Your task to perform on an android device: change the clock display to show seconds Image 0: 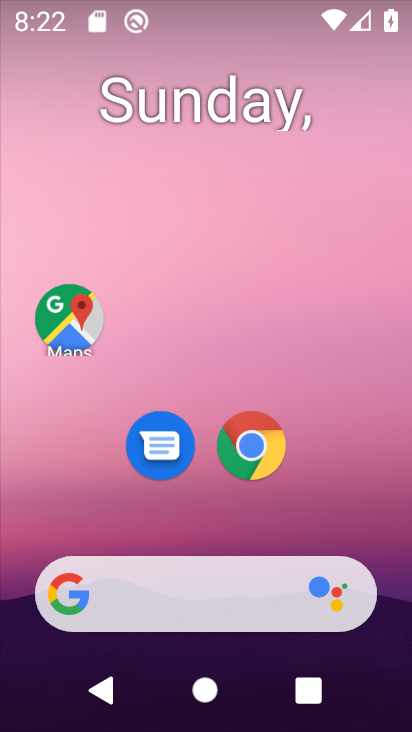
Step 0: drag from (330, 364) to (330, 61)
Your task to perform on an android device: change the clock display to show seconds Image 1: 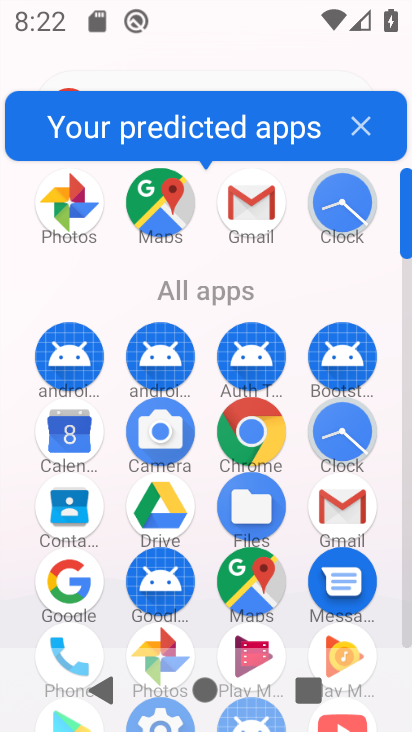
Step 1: click (347, 462)
Your task to perform on an android device: change the clock display to show seconds Image 2: 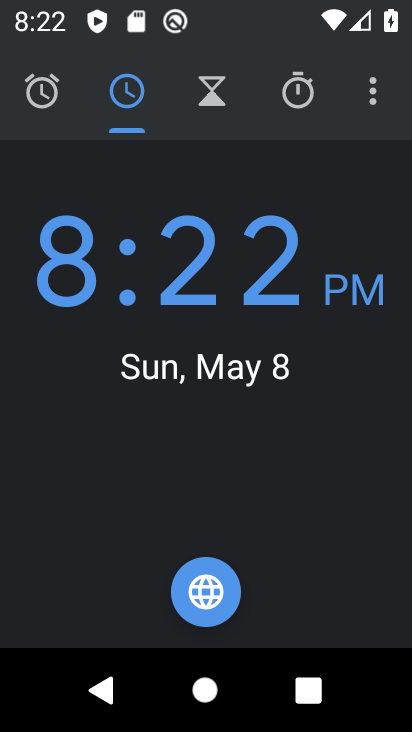
Step 2: click (376, 85)
Your task to perform on an android device: change the clock display to show seconds Image 3: 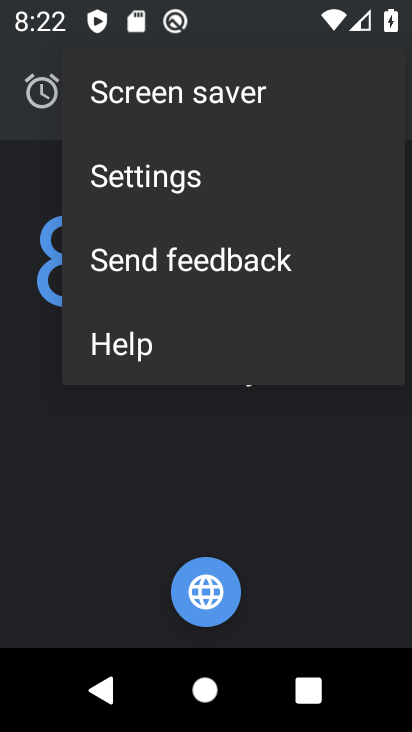
Step 3: click (190, 197)
Your task to perform on an android device: change the clock display to show seconds Image 4: 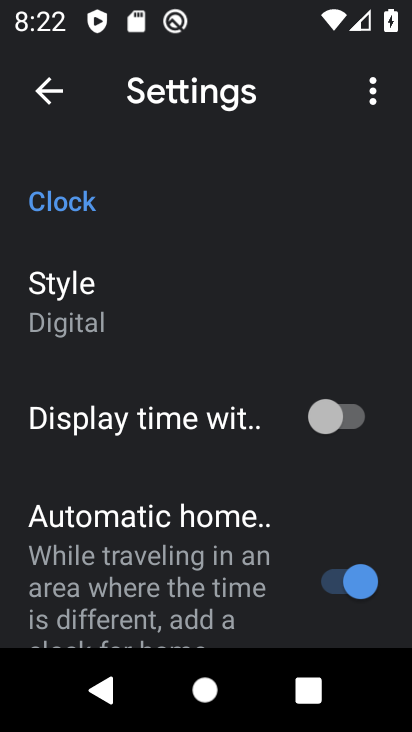
Step 4: click (361, 415)
Your task to perform on an android device: change the clock display to show seconds Image 5: 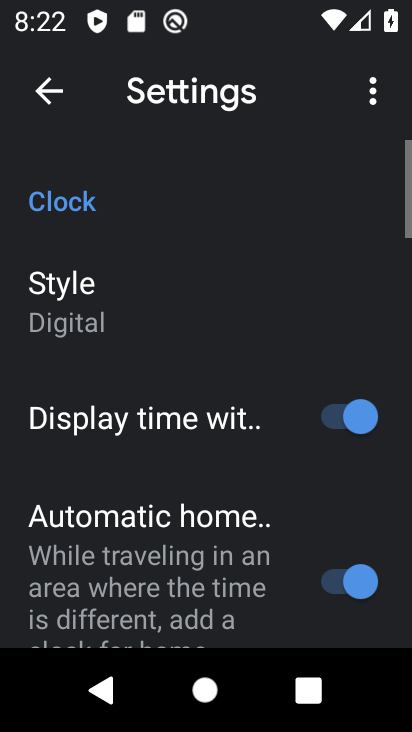
Step 5: task complete